Your task to perform on an android device: toggle notifications settings in the gmail app Image 0: 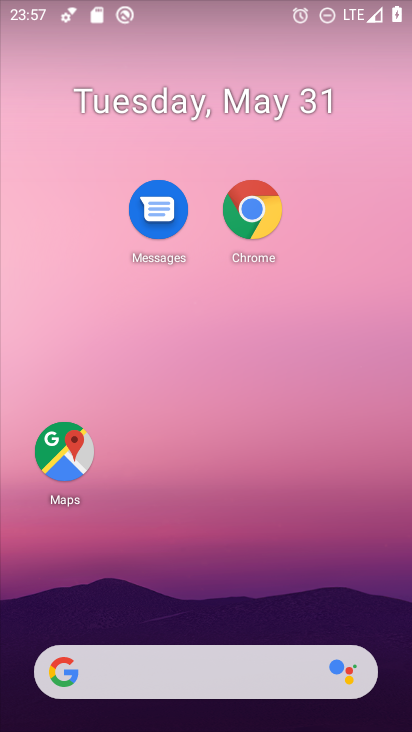
Step 0: press home button
Your task to perform on an android device: toggle notifications settings in the gmail app Image 1: 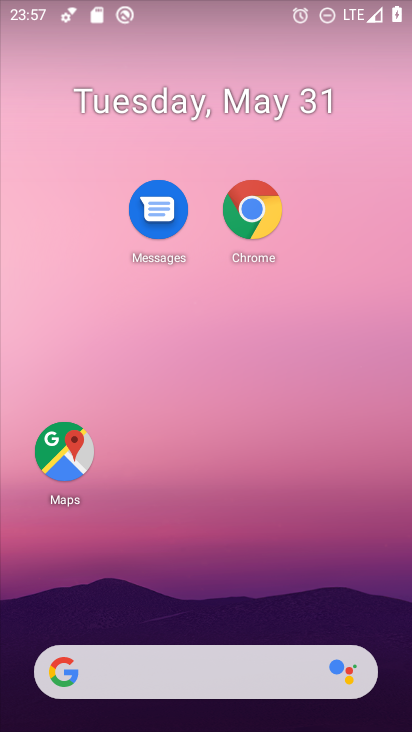
Step 1: drag from (222, 622) to (224, 49)
Your task to perform on an android device: toggle notifications settings in the gmail app Image 2: 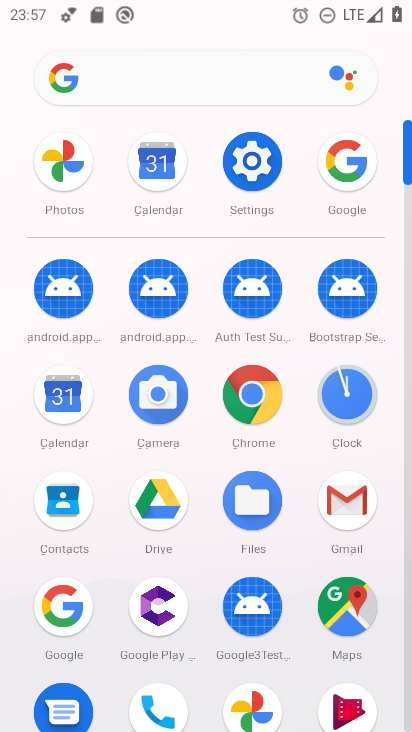
Step 2: click (344, 494)
Your task to perform on an android device: toggle notifications settings in the gmail app Image 3: 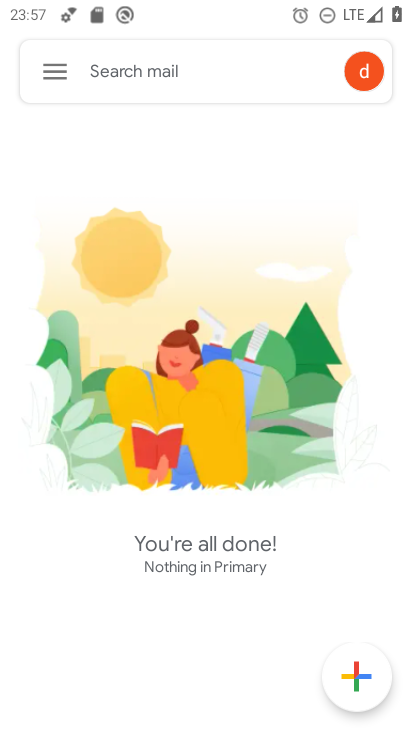
Step 3: click (47, 66)
Your task to perform on an android device: toggle notifications settings in the gmail app Image 4: 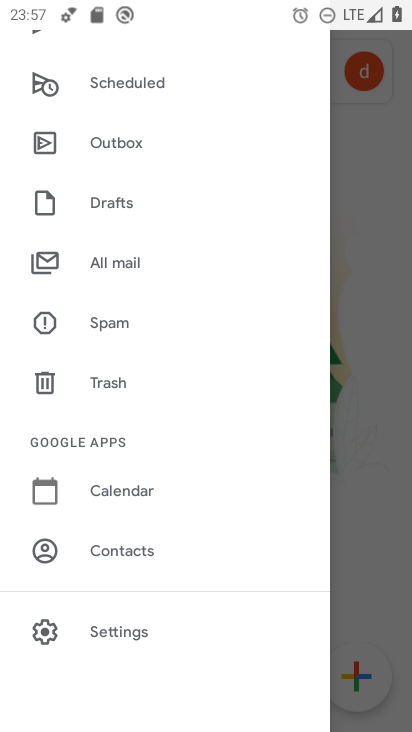
Step 4: click (159, 623)
Your task to perform on an android device: toggle notifications settings in the gmail app Image 5: 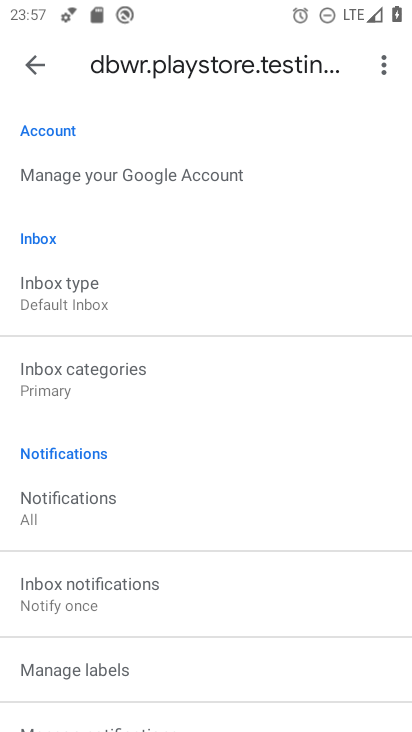
Step 5: click (42, 68)
Your task to perform on an android device: toggle notifications settings in the gmail app Image 6: 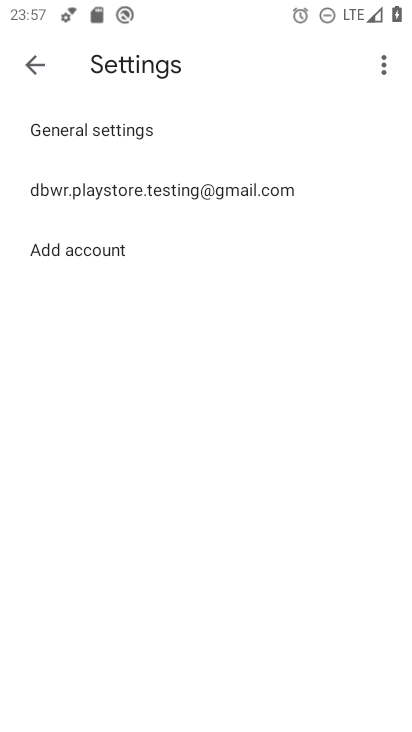
Step 6: click (165, 124)
Your task to perform on an android device: toggle notifications settings in the gmail app Image 7: 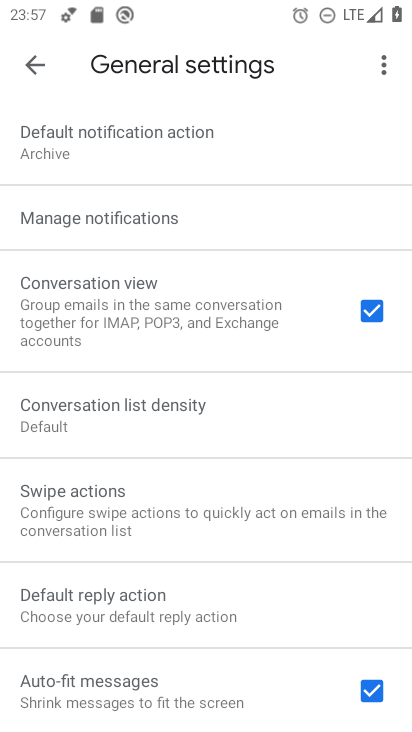
Step 7: click (186, 217)
Your task to perform on an android device: toggle notifications settings in the gmail app Image 8: 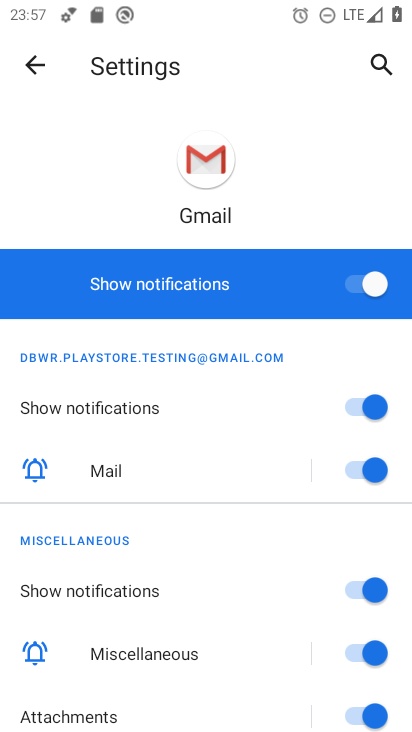
Step 8: click (359, 284)
Your task to perform on an android device: toggle notifications settings in the gmail app Image 9: 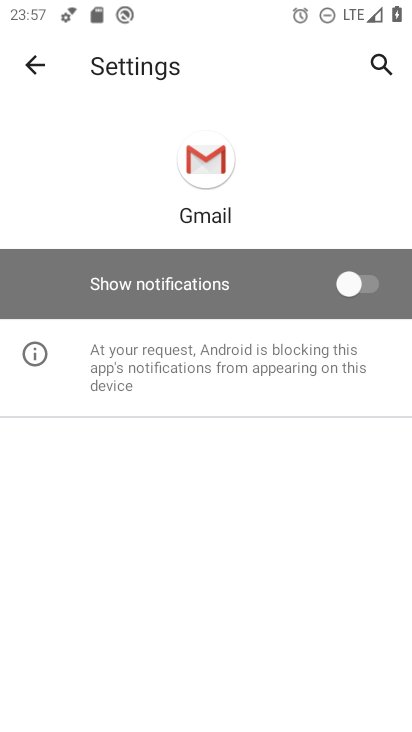
Step 9: task complete